Your task to perform on an android device: set the stopwatch Image 0: 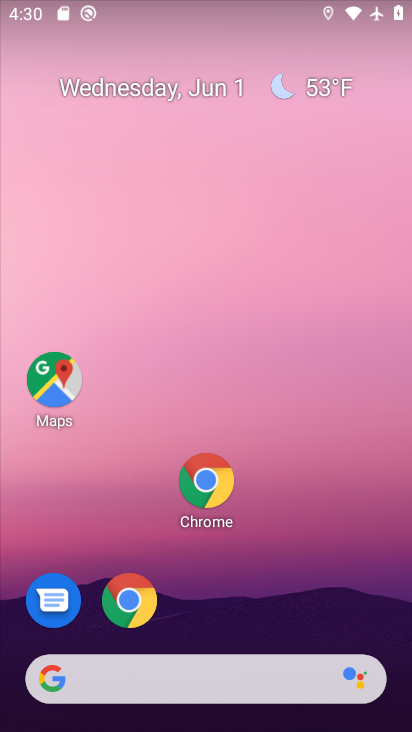
Step 0: drag from (305, 703) to (186, 204)
Your task to perform on an android device: set the stopwatch Image 1: 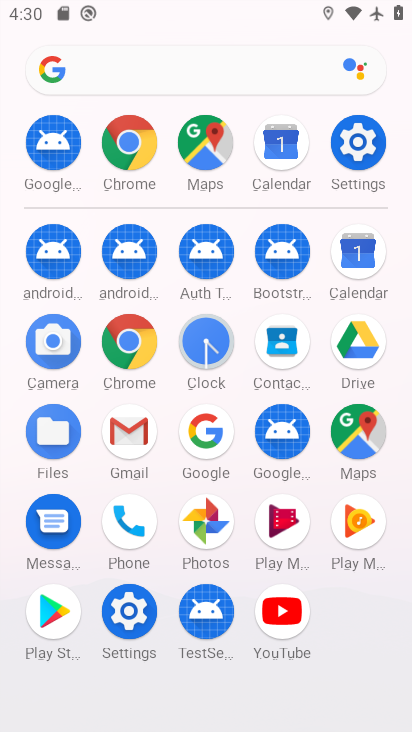
Step 1: click (211, 603)
Your task to perform on an android device: set the stopwatch Image 2: 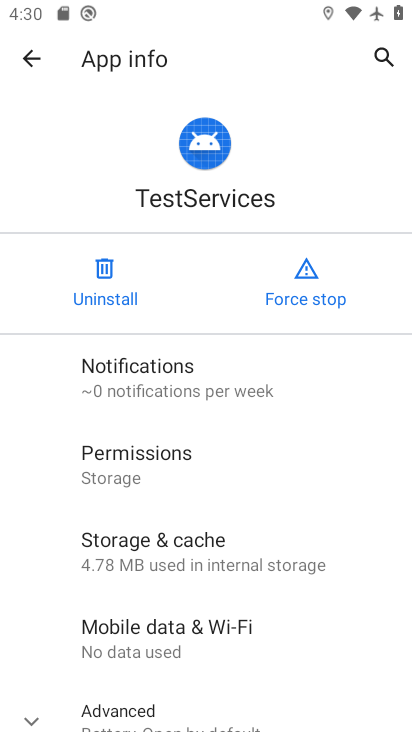
Step 2: click (31, 58)
Your task to perform on an android device: set the stopwatch Image 3: 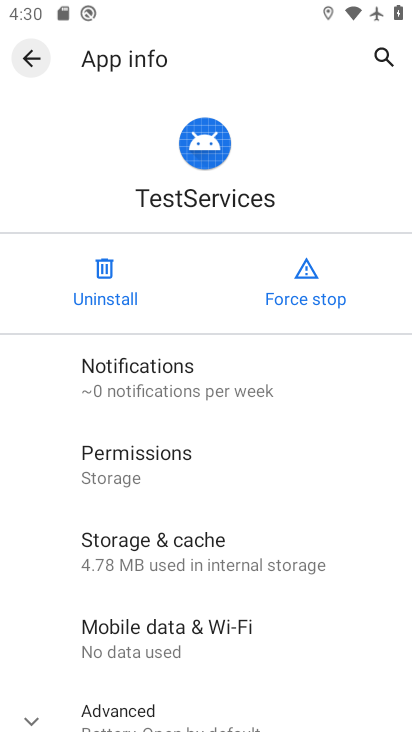
Step 3: click (31, 58)
Your task to perform on an android device: set the stopwatch Image 4: 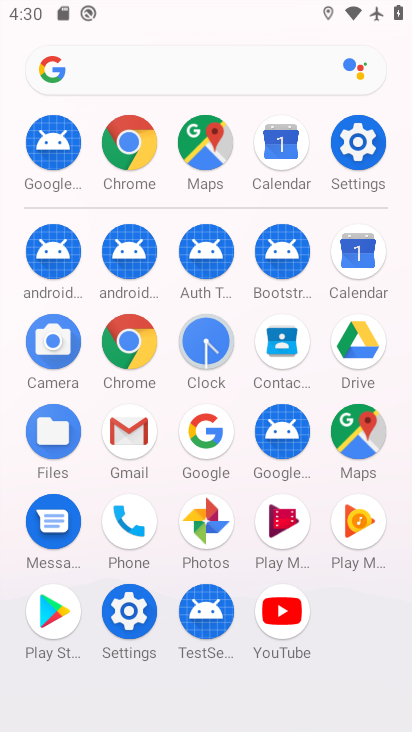
Step 4: click (212, 344)
Your task to perform on an android device: set the stopwatch Image 5: 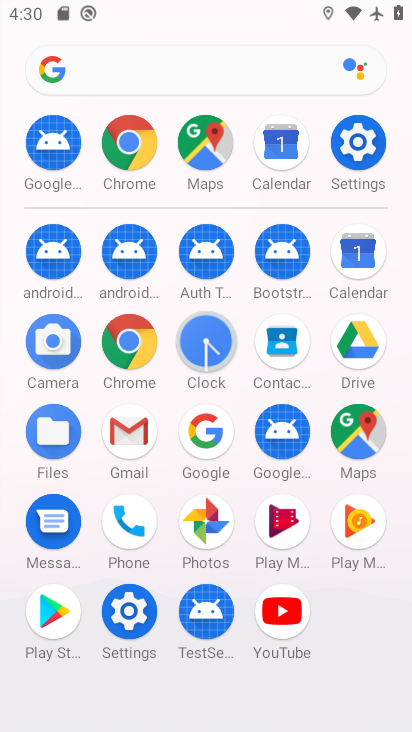
Step 5: click (212, 344)
Your task to perform on an android device: set the stopwatch Image 6: 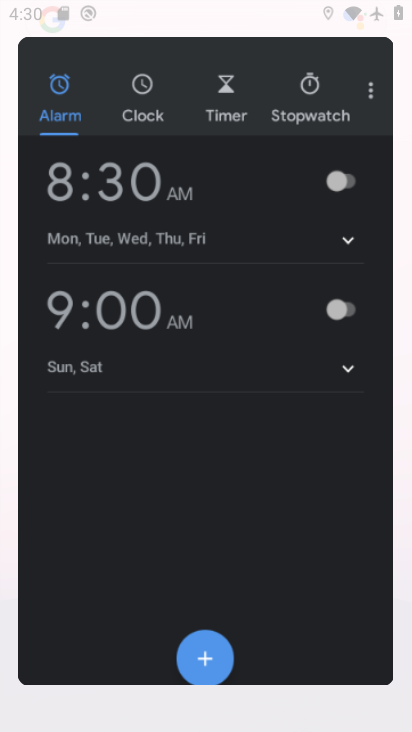
Step 6: click (212, 344)
Your task to perform on an android device: set the stopwatch Image 7: 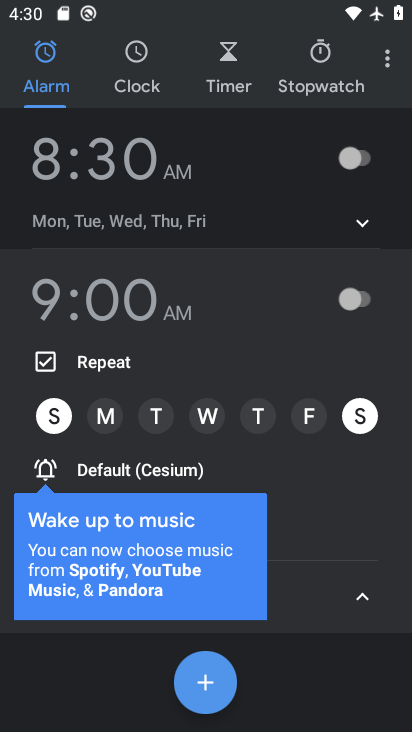
Step 7: click (323, 63)
Your task to perform on an android device: set the stopwatch Image 8: 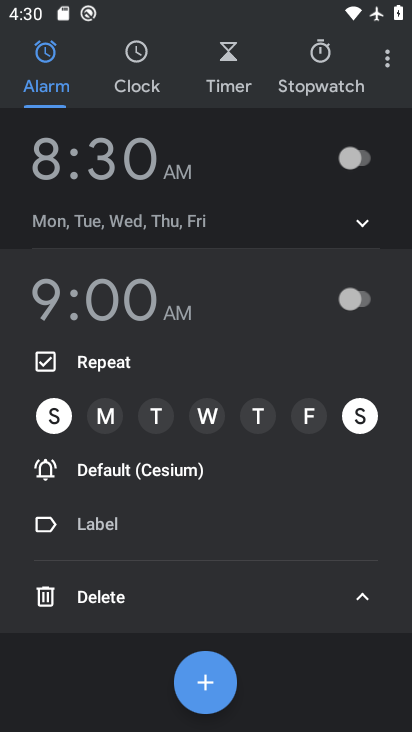
Step 8: click (321, 60)
Your task to perform on an android device: set the stopwatch Image 9: 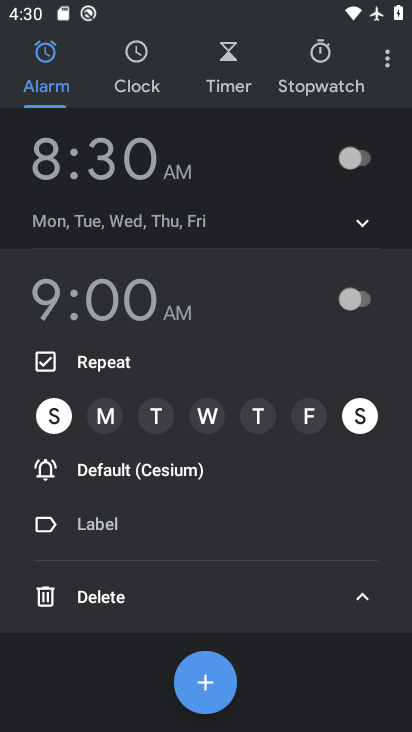
Step 9: click (321, 60)
Your task to perform on an android device: set the stopwatch Image 10: 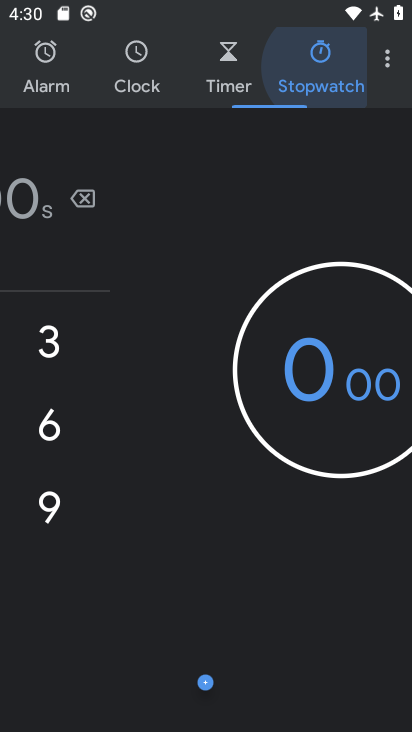
Step 10: click (321, 60)
Your task to perform on an android device: set the stopwatch Image 11: 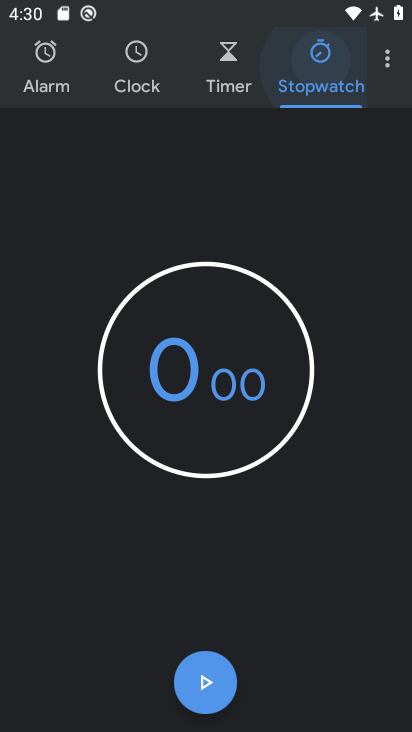
Step 11: click (321, 60)
Your task to perform on an android device: set the stopwatch Image 12: 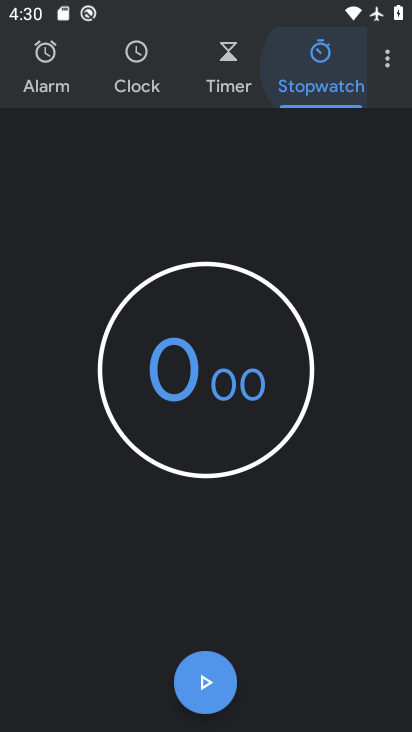
Step 12: click (319, 59)
Your task to perform on an android device: set the stopwatch Image 13: 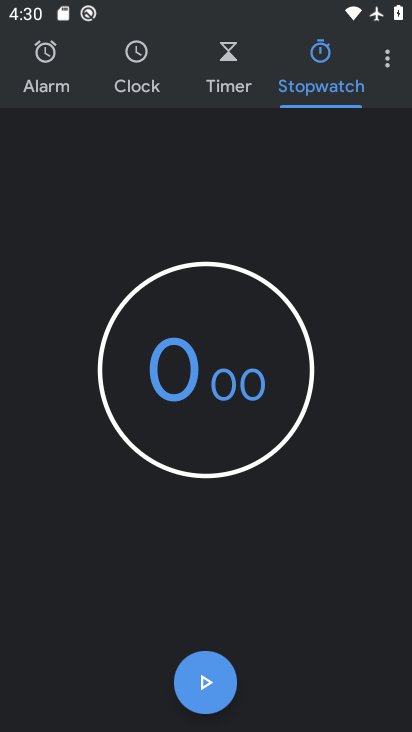
Step 13: click (207, 679)
Your task to perform on an android device: set the stopwatch Image 14: 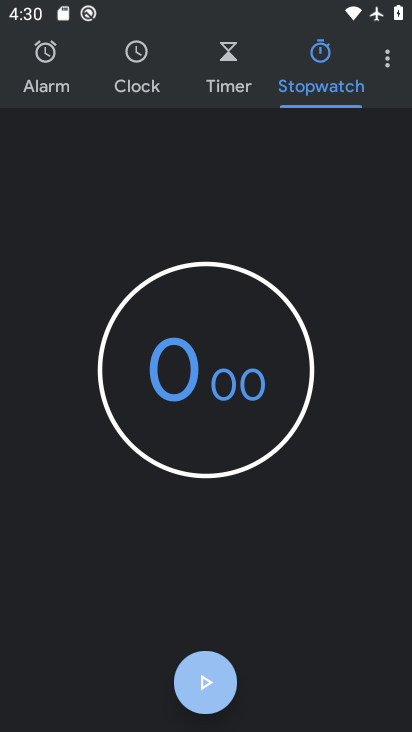
Step 14: click (204, 659)
Your task to perform on an android device: set the stopwatch Image 15: 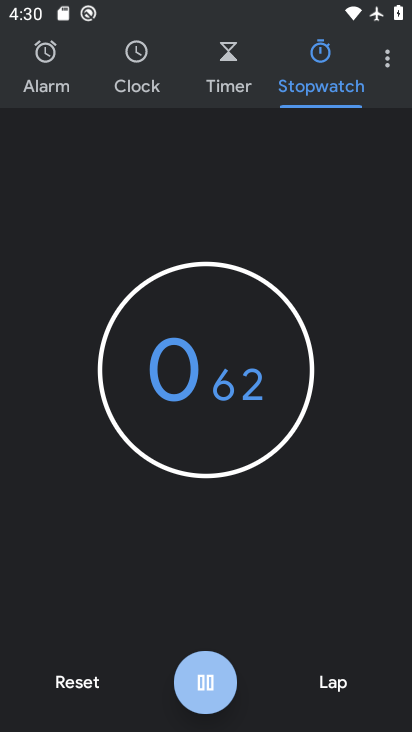
Step 15: click (203, 660)
Your task to perform on an android device: set the stopwatch Image 16: 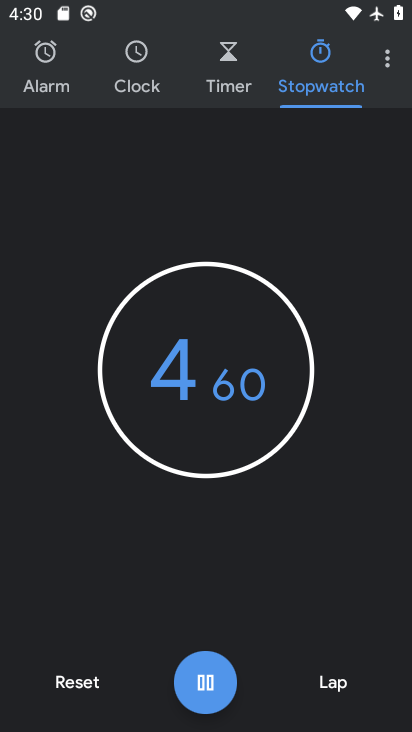
Step 16: click (203, 686)
Your task to perform on an android device: set the stopwatch Image 17: 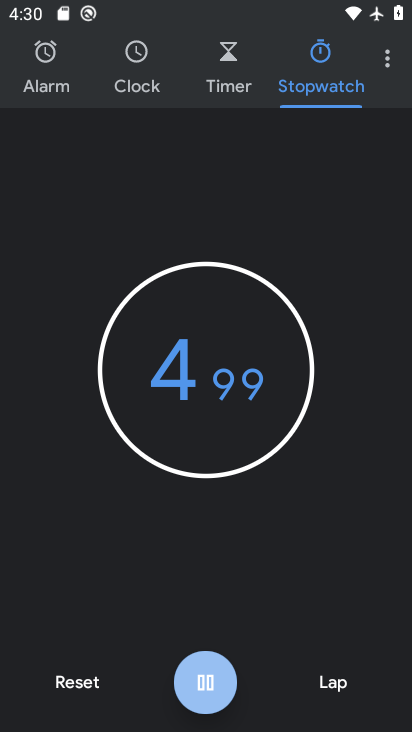
Step 17: click (204, 685)
Your task to perform on an android device: set the stopwatch Image 18: 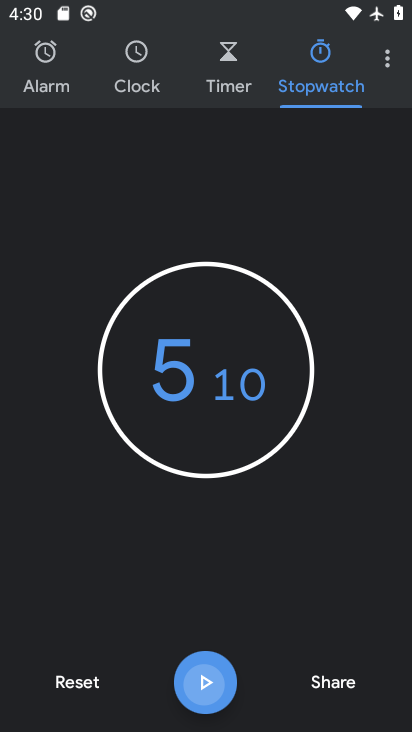
Step 18: click (204, 685)
Your task to perform on an android device: set the stopwatch Image 19: 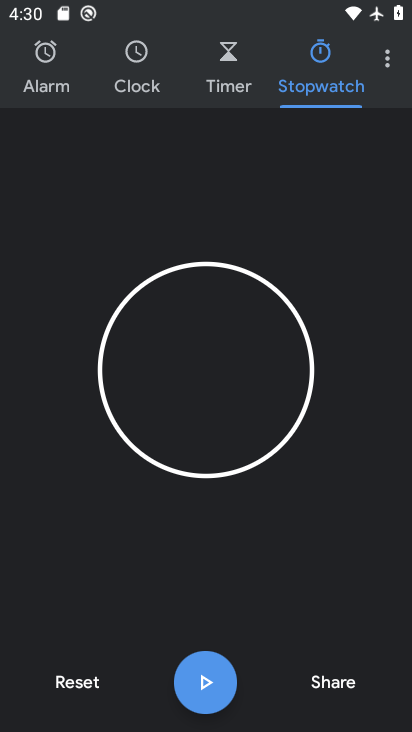
Step 19: task complete